Your task to perform on an android device: Do I have any events this weekend? Image 0: 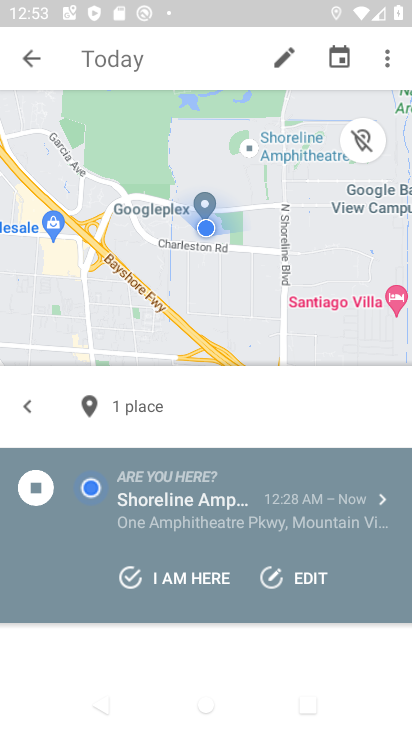
Step 0: press home button
Your task to perform on an android device: Do I have any events this weekend? Image 1: 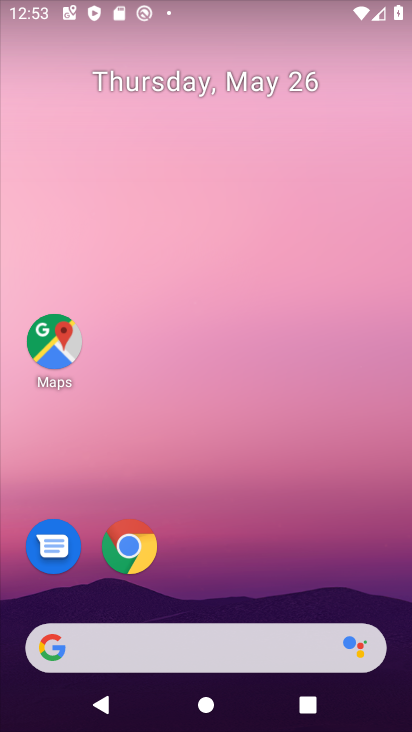
Step 1: drag from (266, 574) to (259, 66)
Your task to perform on an android device: Do I have any events this weekend? Image 2: 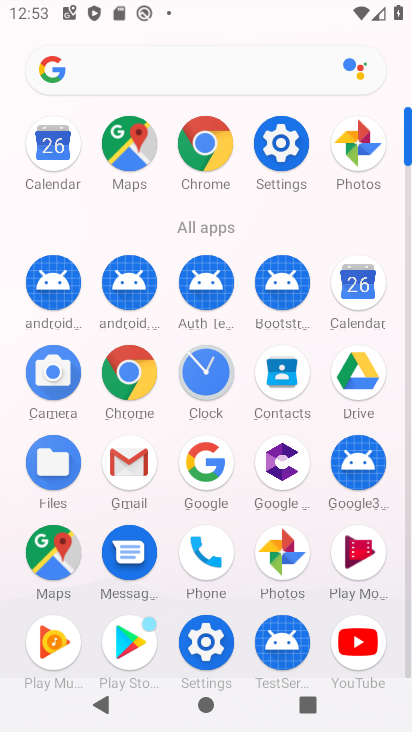
Step 2: click (366, 287)
Your task to perform on an android device: Do I have any events this weekend? Image 3: 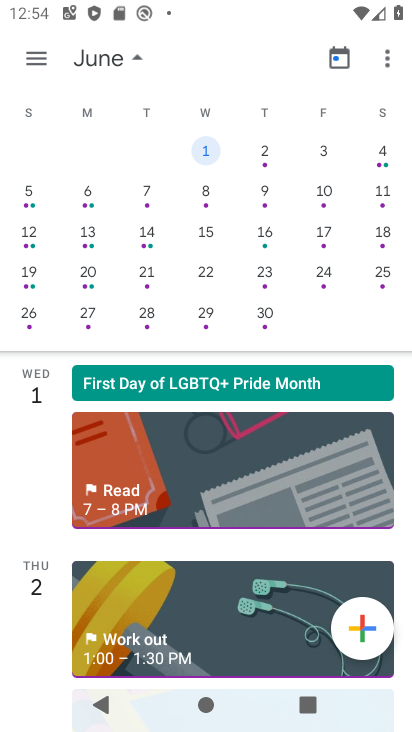
Step 3: drag from (63, 175) to (267, 183)
Your task to perform on an android device: Do I have any events this weekend? Image 4: 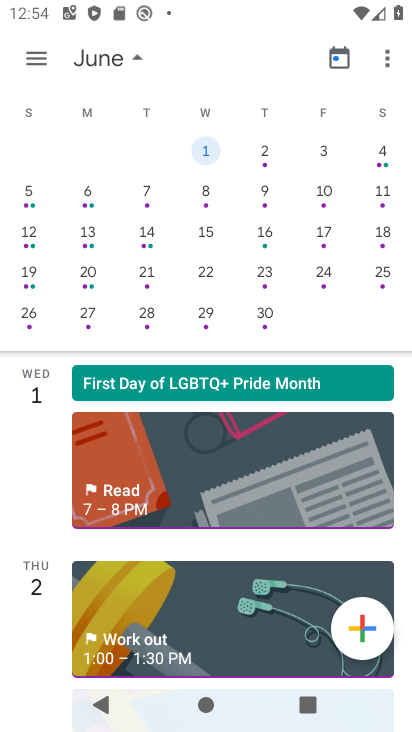
Step 4: drag from (79, 248) to (397, 227)
Your task to perform on an android device: Do I have any events this weekend? Image 5: 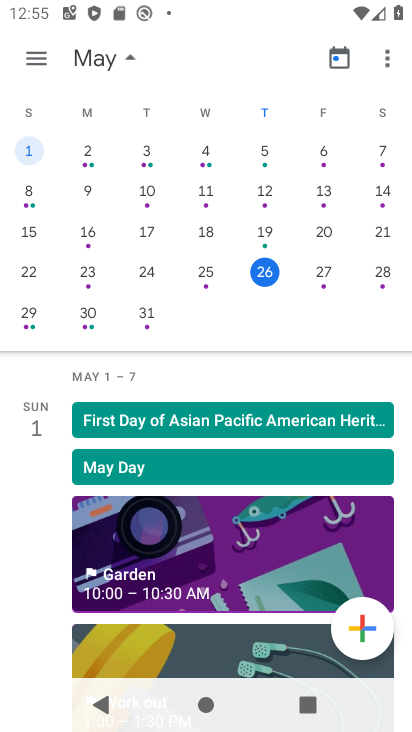
Step 5: click (114, 313)
Your task to perform on an android device: Do I have any events this weekend? Image 6: 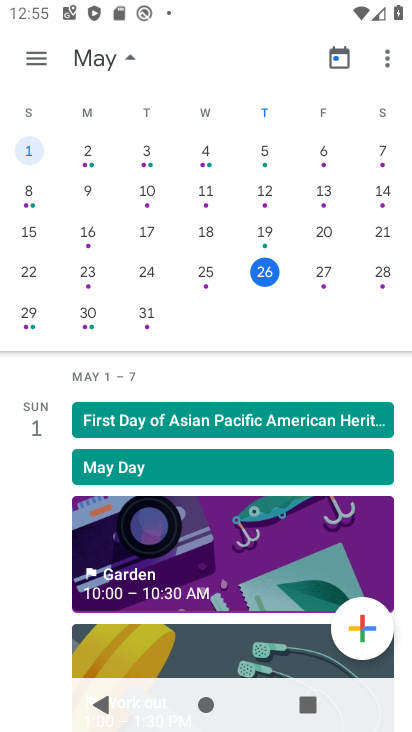
Step 6: click (103, 314)
Your task to perform on an android device: Do I have any events this weekend? Image 7: 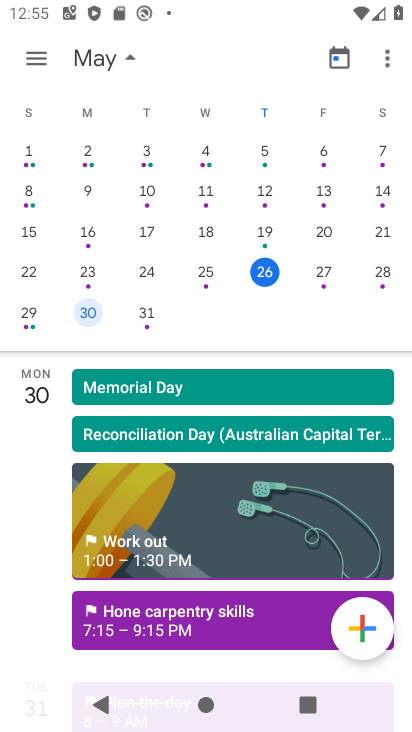
Step 7: click (133, 51)
Your task to perform on an android device: Do I have any events this weekend? Image 8: 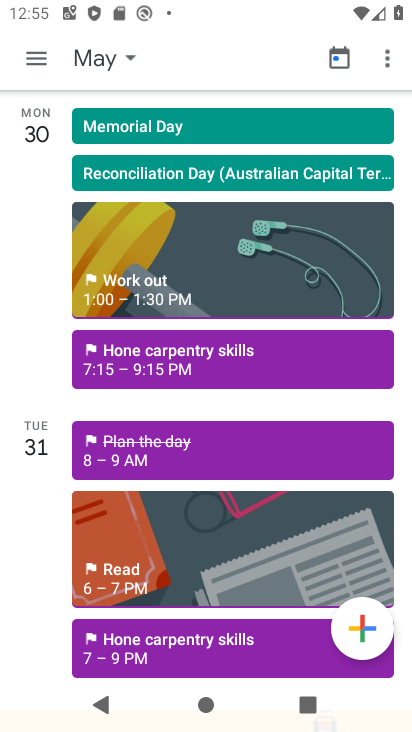
Step 8: task complete